Your task to perform on an android device: turn on translation in the chrome app Image 0: 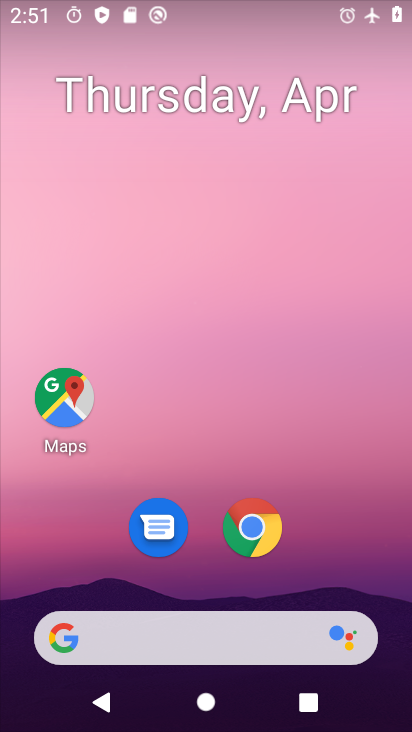
Step 0: click (249, 531)
Your task to perform on an android device: turn on translation in the chrome app Image 1: 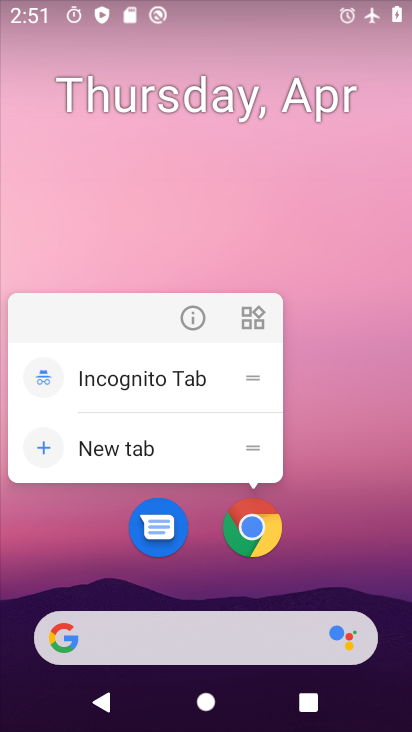
Step 1: click (253, 529)
Your task to perform on an android device: turn on translation in the chrome app Image 2: 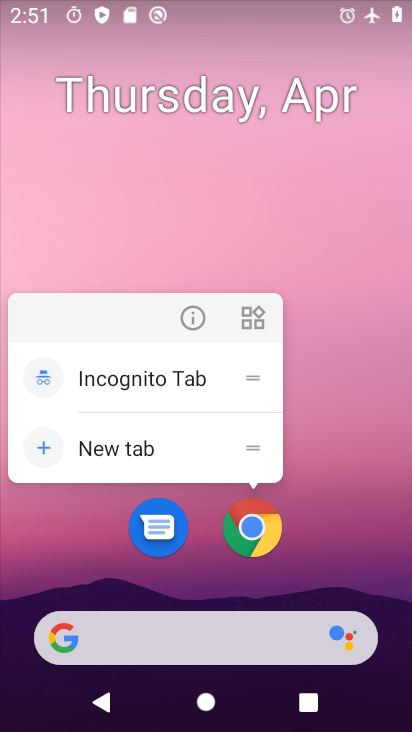
Step 2: click (270, 547)
Your task to perform on an android device: turn on translation in the chrome app Image 3: 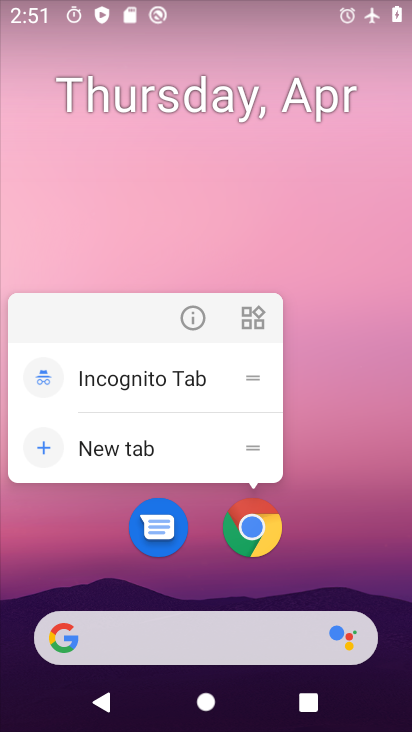
Step 3: click (278, 529)
Your task to perform on an android device: turn on translation in the chrome app Image 4: 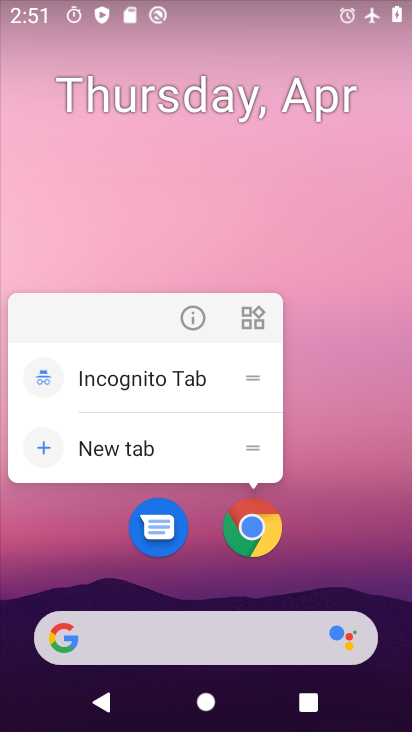
Step 4: click (264, 551)
Your task to perform on an android device: turn on translation in the chrome app Image 5: 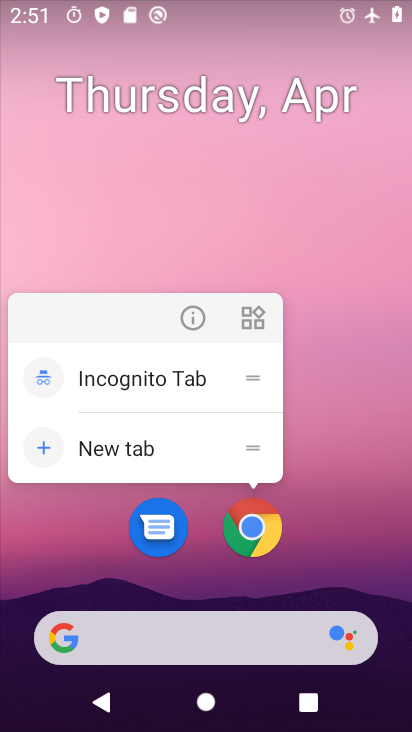
Step 5: drag from (348, 566) to (408, 254)
Your task to perform on an android device: turn on translation in the chrome app Image 6: 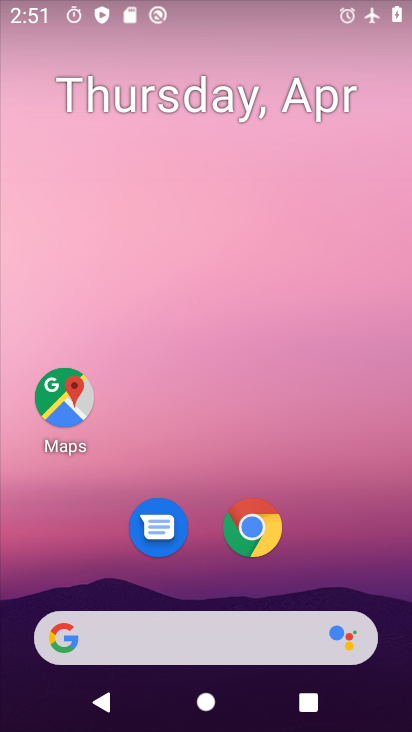
Step 6: click (249, 529)
Your task to perform on an android device: turn on translation in the chrome app Image 7: 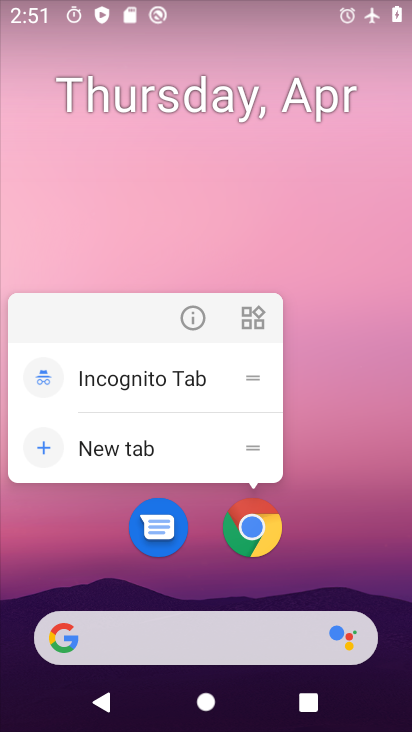
Step 7: drag from (318, 566) to (356, 197)
Your task to perform on an android device: turn on translation in the chrome app Image 8: 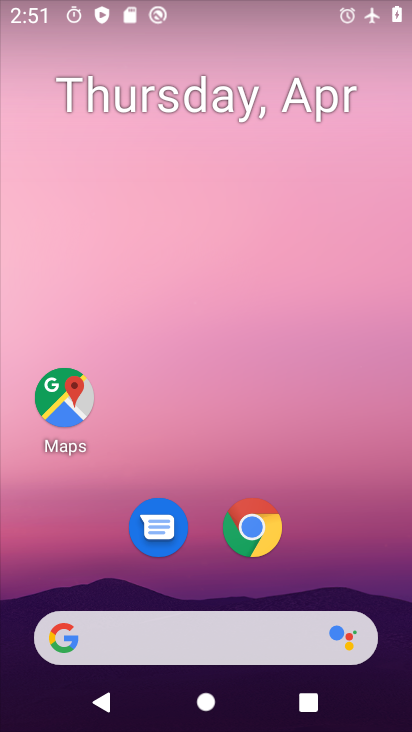
Step 8: drag from (305, 373) to (268, 105)
Your task to perform on an android device: turn on translation in the chrome app Image 9: 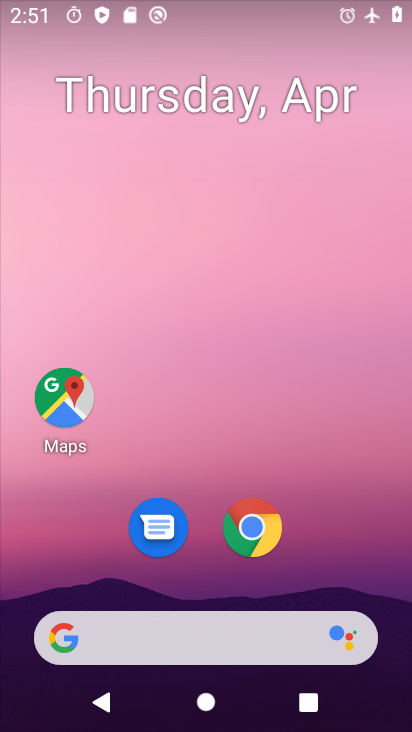
Step 9: drag from (318, 490) to (310, 157)
Your task to perform on an android device: turn on translation in the chrome app Image 10: 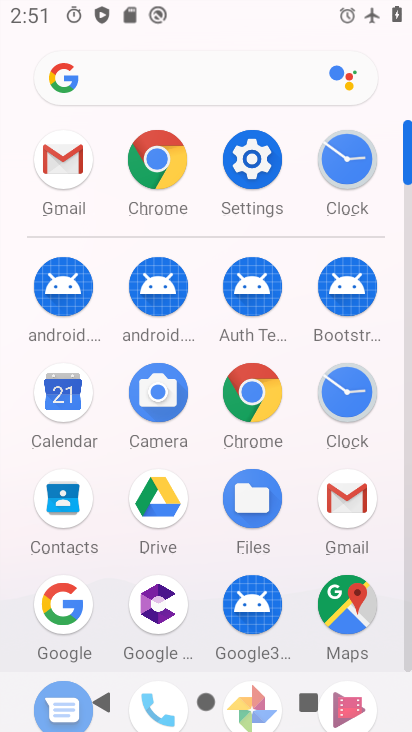
Step 10: drag from (226, 616) to (249, 462)
Your task to perform on an android device: turn on translation in the chrome app Image 11: 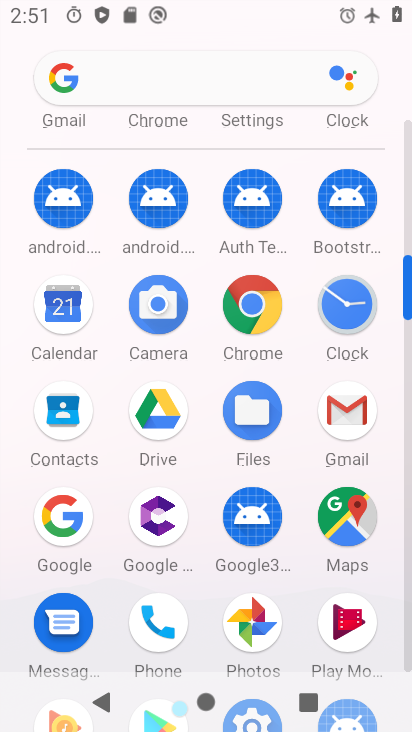
Step 11: drag from (303, 640) to (298, 272)
Your task to perform on an android device: turn on translation in the chrome app Image 12: 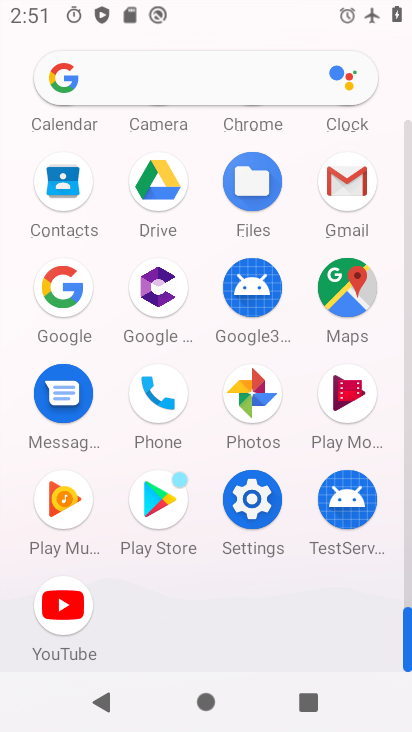
Step 12: drag from (199, 292) to (193, 499)
Your task to perform on an android device: turn on translation in the chrome app Image 13: 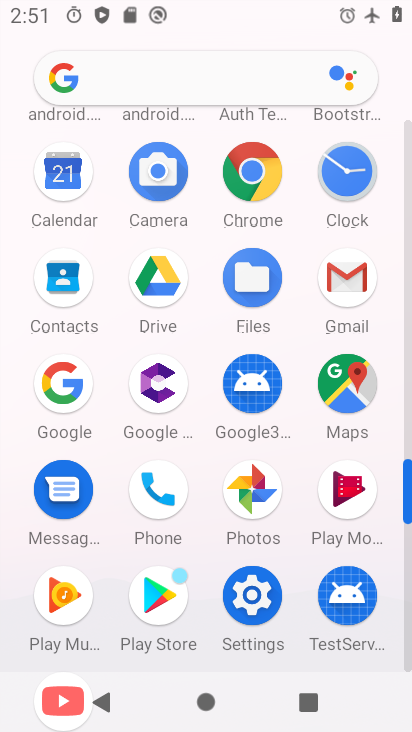
Step 13: click (262, 163)
Your task to perform on an android device: turn on translation in the chrome app Image 14: 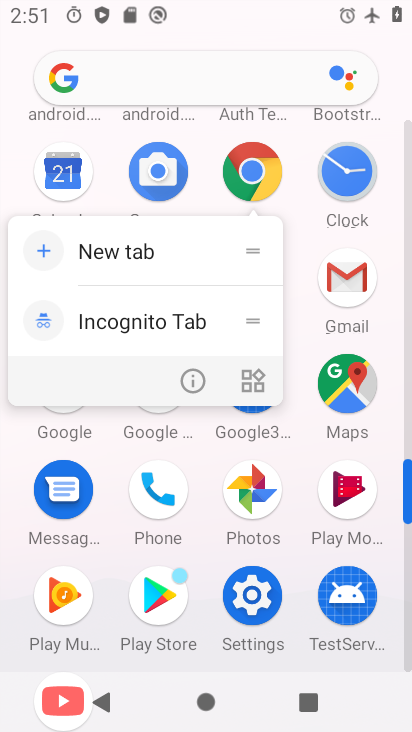
Step 14: click (262, 166)
Your task to perform on an android device: turn on translation in the chrome app Image 15: 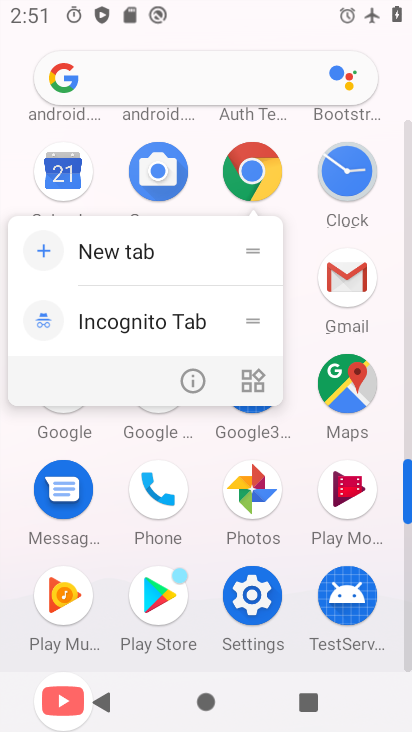
Step 15: click (246, 179)
Your task to perform on an android device: turn on translation in the chrome app Image 16: 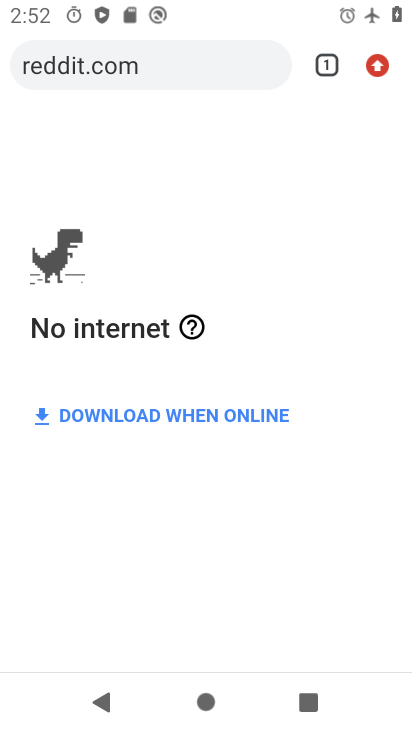
Step 16: drag from (402, 65) to (191, 576)
Your task to perform on an android device: turn on translation in the chrome app Image 17: 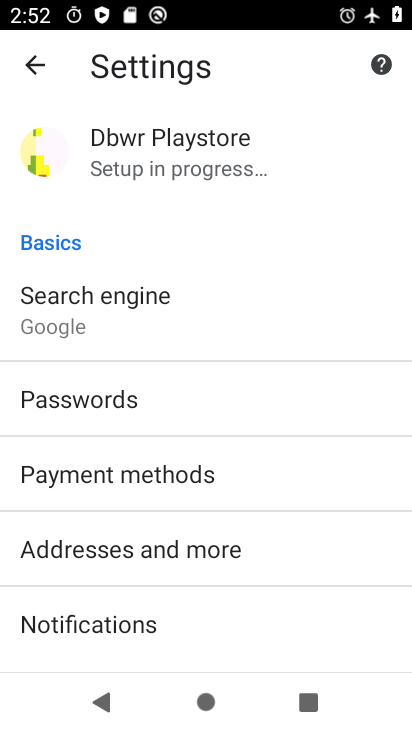
Step 17: drag from (184, 558) to (264, 95)
Your task to perform on an android device: turn on translation in the chrome app Image 18: 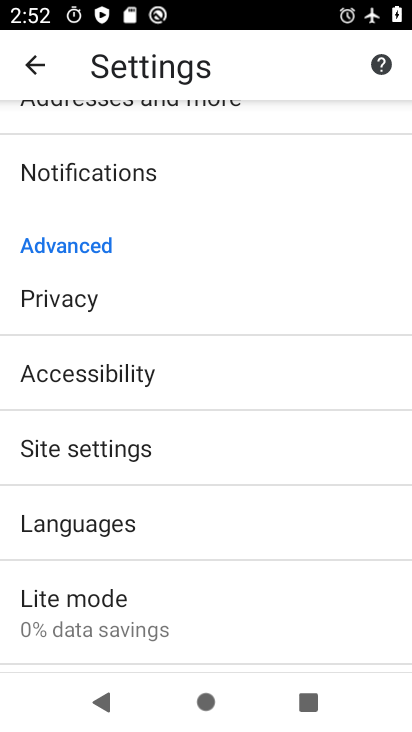
Step 18: click (94, 521)
Your task to perform on an android device: turn on translation in the chrome app Image 19: 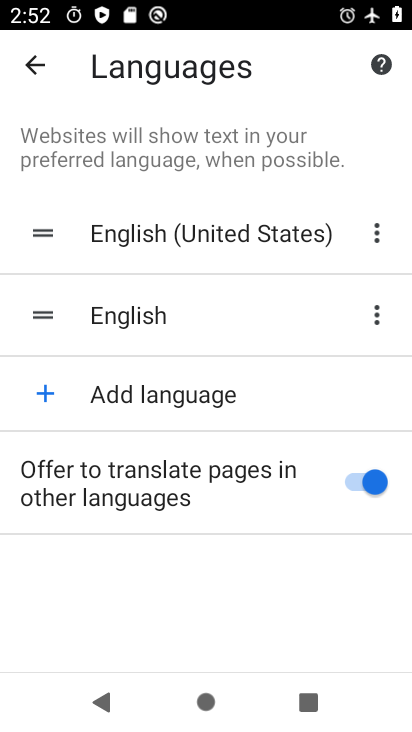
Step 19: task complete